Your task to perform on an android device: snooze an email in the gmail app Image 0: 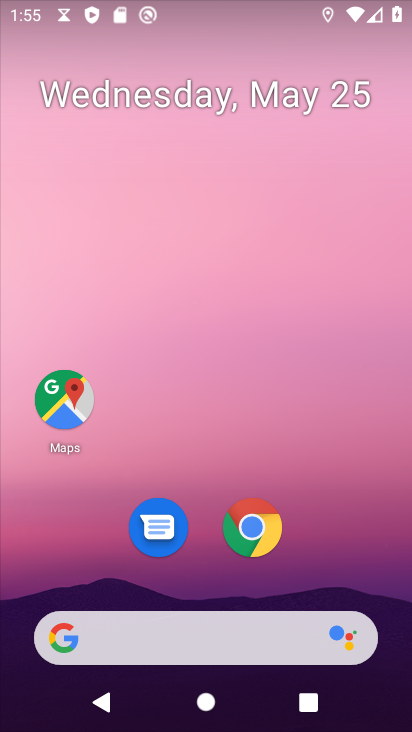
Step 0: drag from (79, 591) to (164, 15)
Your task to perform on an android device: snooze an email in the gmail app Image 1: 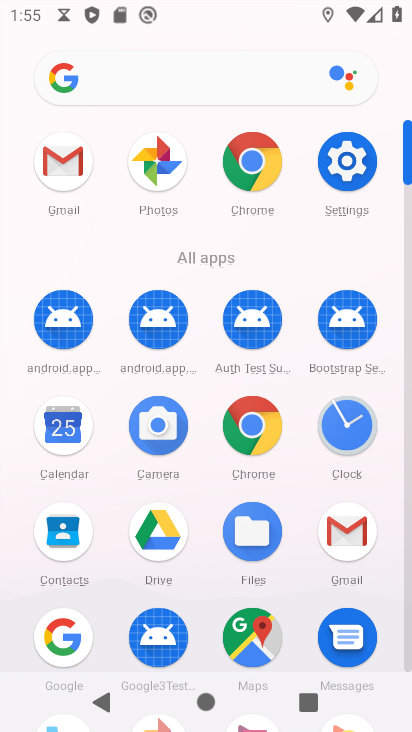
Step 1: click (347, 519)
Your task to perform on an android device: snooze an email in the gmail app Image 2: 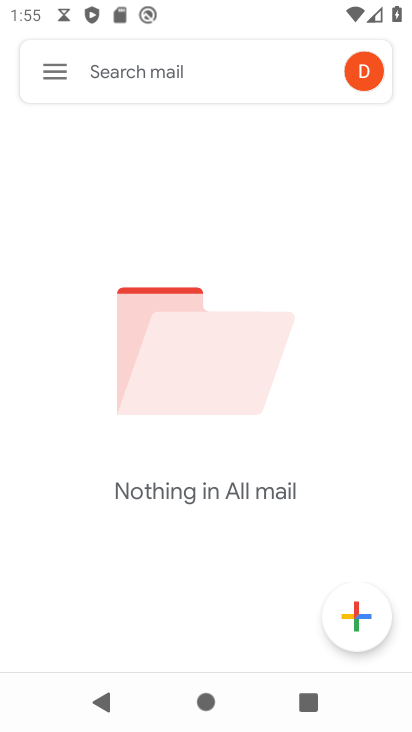
Step 2: task complete